Your task to perform on an android device: What is the news today? Image 0: 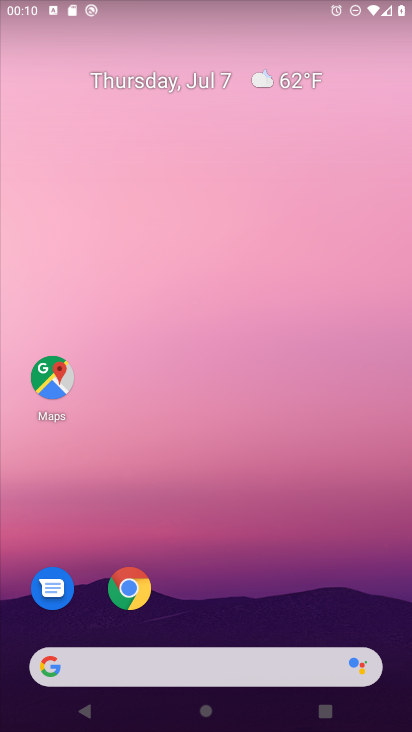
Step 0: drag from (5, 238) to (404, 257)
Your task to perform on an android device: What is the news today? Image 1: 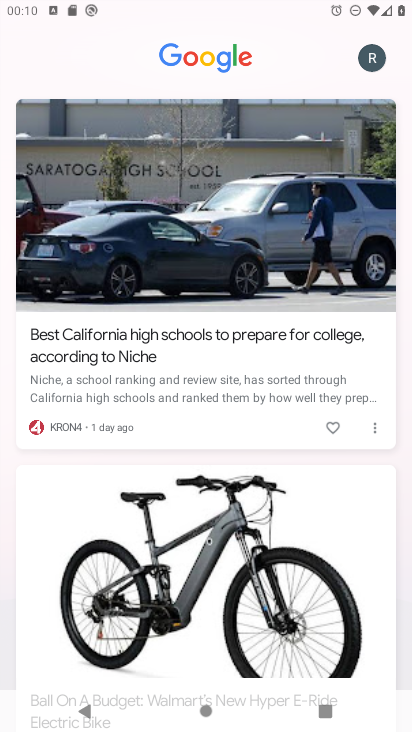
Step 1: task complete